Your task to perform on an android device: Open internet settings Image 0: 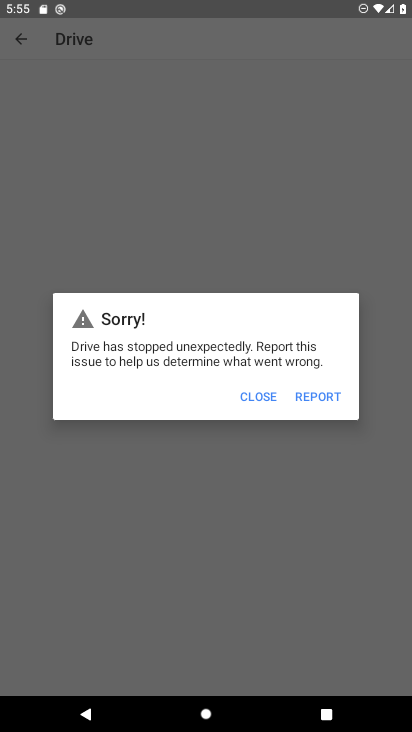
Step 0: press home button
Your task to perform on an android device: Open internet settings Image 1: 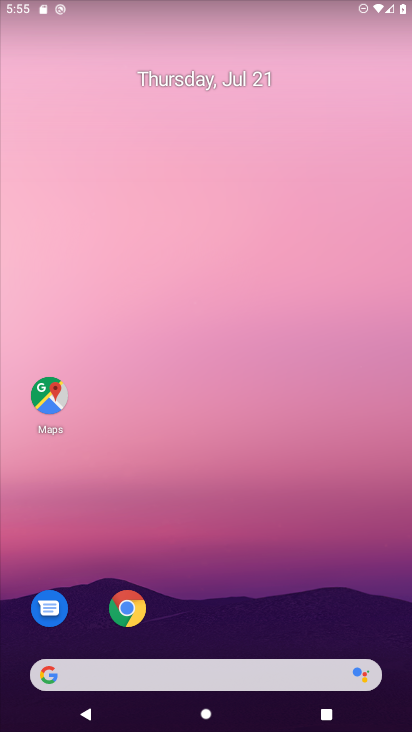
Step 1: drag from (221, 674) to (193, 292)
Your task to perform on an android device: Open internet settings Image 2: 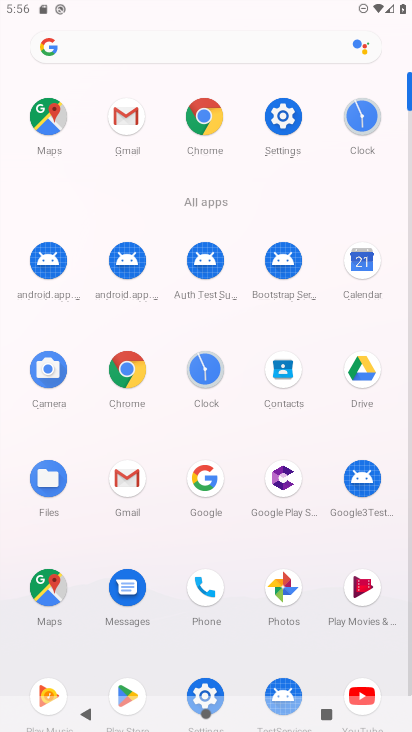
Step 2: click (281, 116)
Your task to perform on an android device: Open internet settings Image 3: 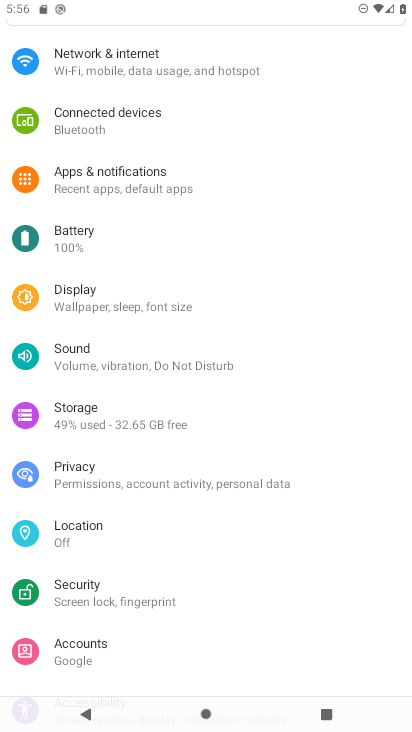
Step 3: click (145, 66)
Your task to perform on an android device: Open internet settings Image 4: 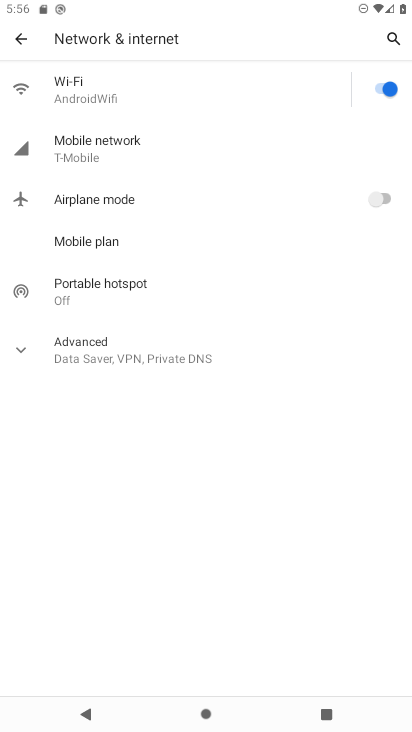
Step 4: task complete